Your task to perform on an android device: Show me popular games on the Play Store Image 0: 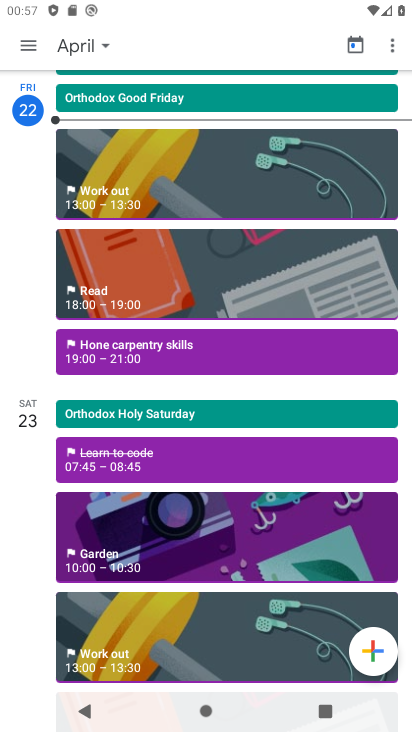
Step 0: press back button
Your task to perform on an android device: Show me popular games on the Play Store Image 1: 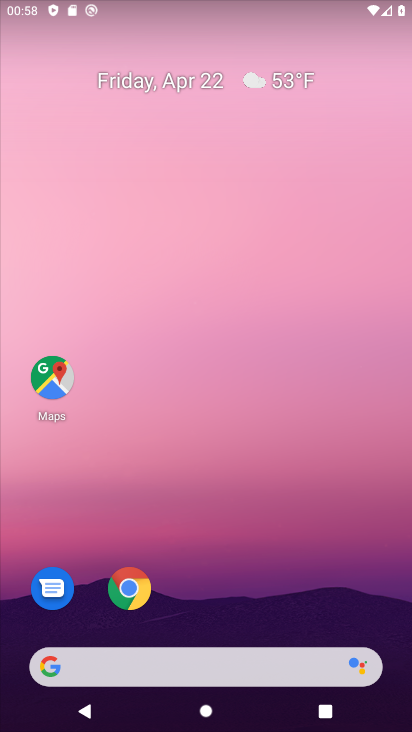
Step 1: drag from (237, 526) to (234, 182)
Your task to perform on an android device: Show me popular games on the Play Store Image 2: 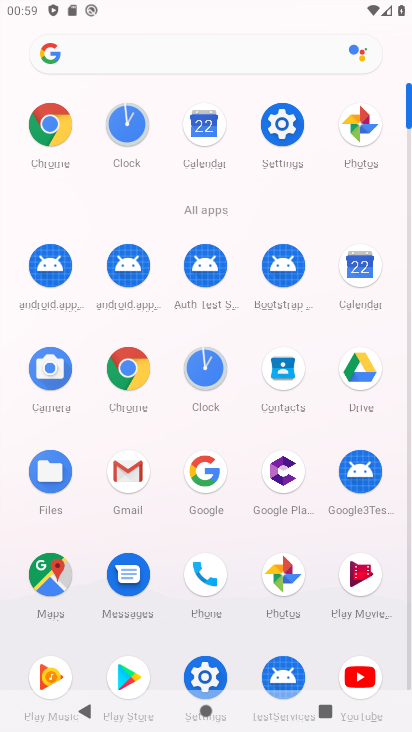
Step 2: click (127, 664)
Your task to perform on an android device: Show me popular games on the Play Store Image 3: 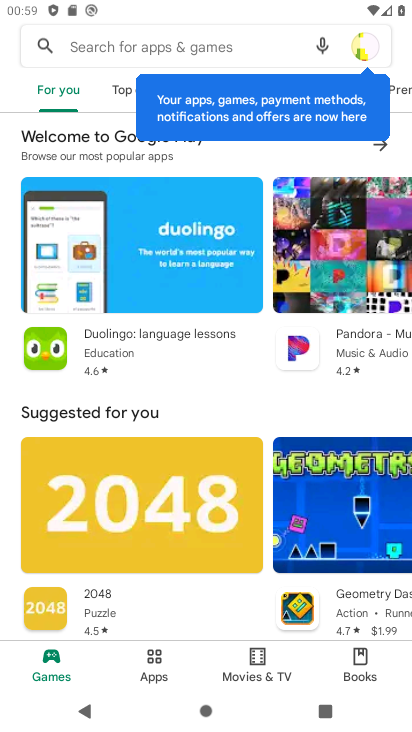
Step 3: click (52, 677)
Your task to perform on an android device: Show me popular games on the Play Store Image 4: 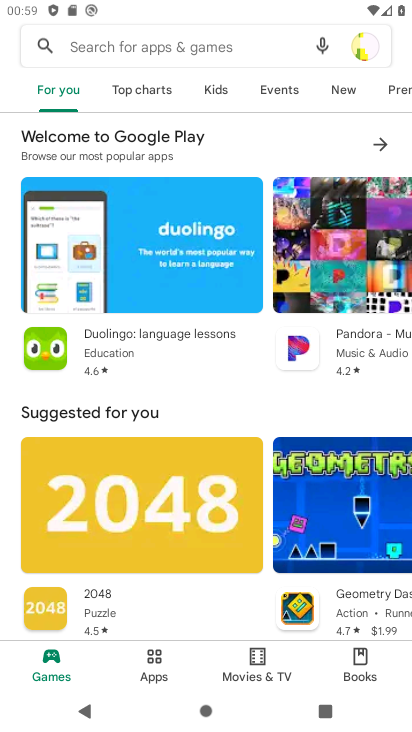
Step 4: drag from (365, 92) to (91, 91)
Your task to perform on an android device: Show me popular games on the Play Store Image 5: 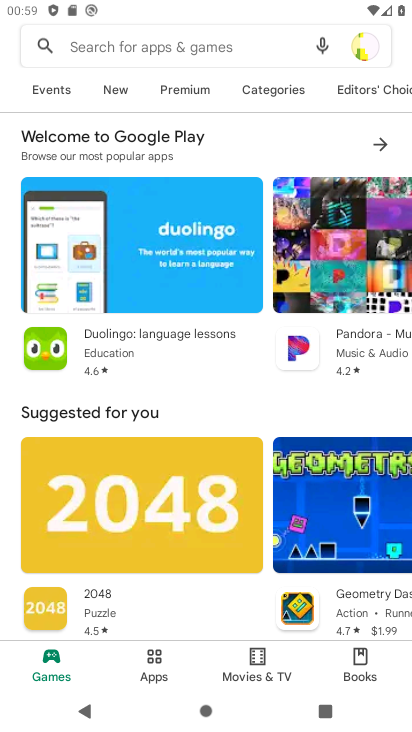
Step 5: drag from (313, 89) to (47, 90)
Your task to perform on an android device: Show me popular games on the Play Store Image 6: 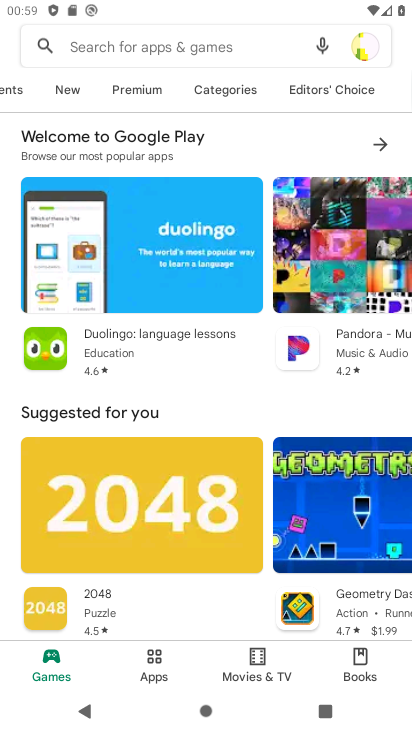
Step 6: drag from (196, 545) to (193, 136)
Your task to perform on an android device: Show me popular games on the Play Store Image 7: 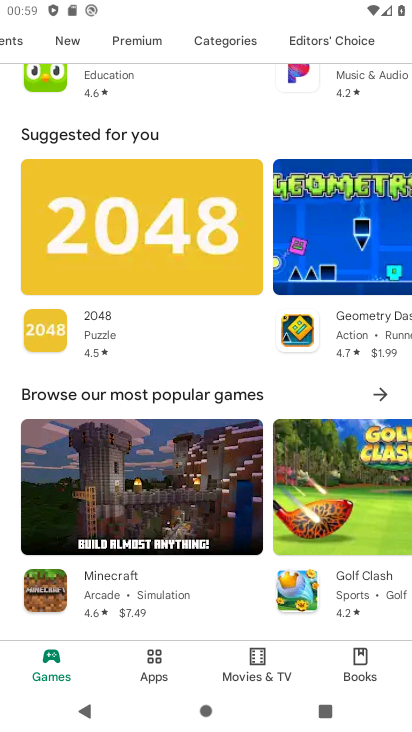
Step 7: click (365, 389)
Your task to perform on an android device: Show me popular games on the Play Store Image 8: 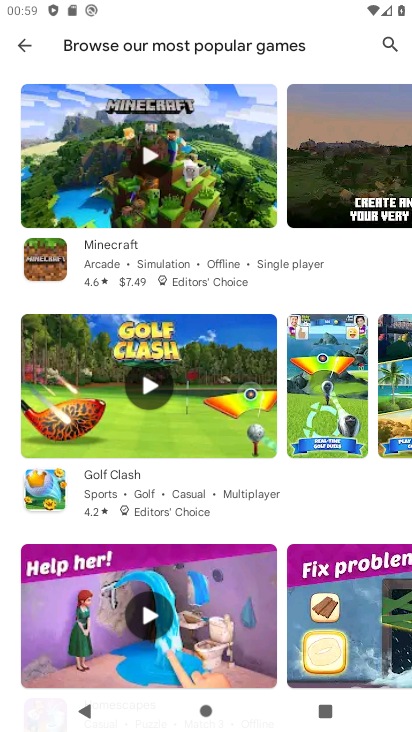
Step 8: task complete